Your task to perform on an android device: snooze an email in the gmail app Image 0: 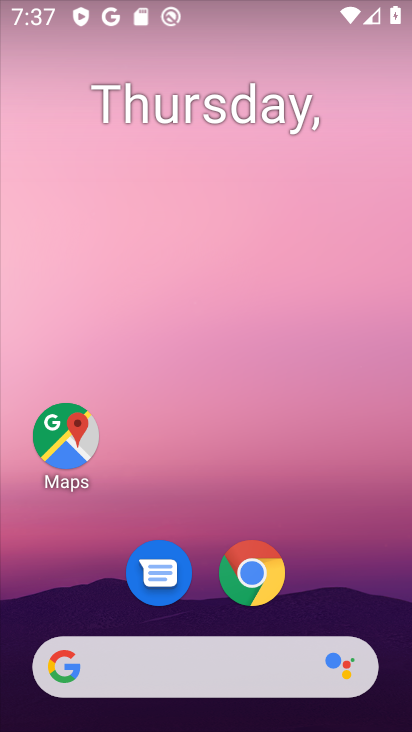
Step 0: drag from (350, 599) to (332, 224)
Your task to perform on an android device: snooze an email in the gmail app Image 1: 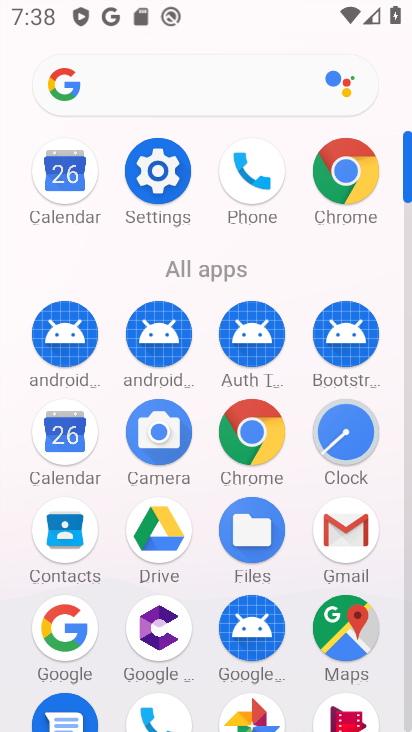
Step 1: click (332, 525)
Your task to perform on an android device: snooze an email in the gmail app Image 2: 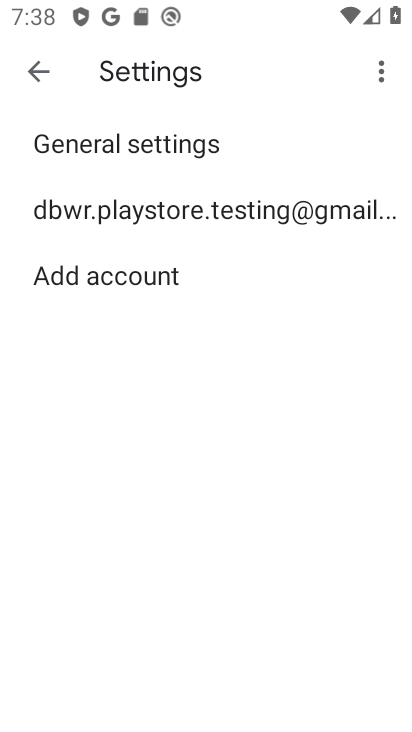
Step 2: click (262, 211)
Your task to perform on an android device: snooze an email in the gmail app Image 3: 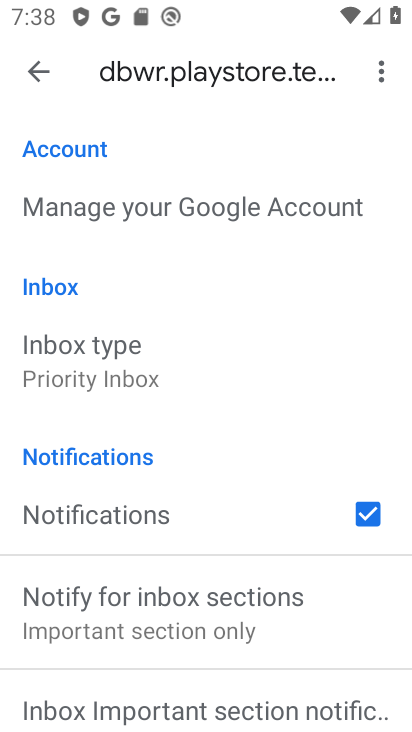
Step 3: click (39, 71)
Your task to perform on an android device: snooze an email in the gmail app Image 4: 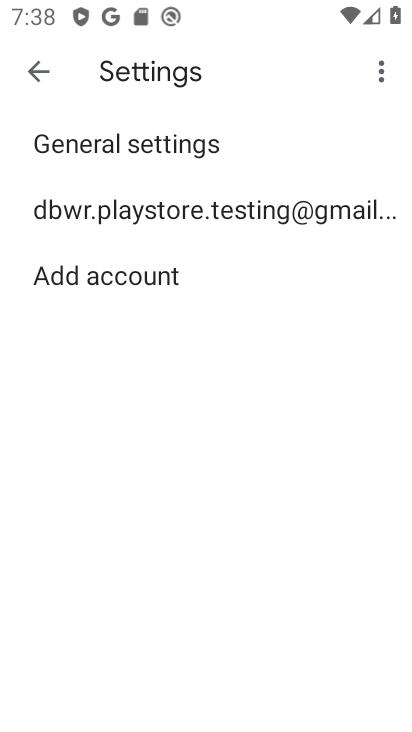
Step 4: click (56, 78)
Your task to perform on an android device: snooze an email in the gmail app Image 5: 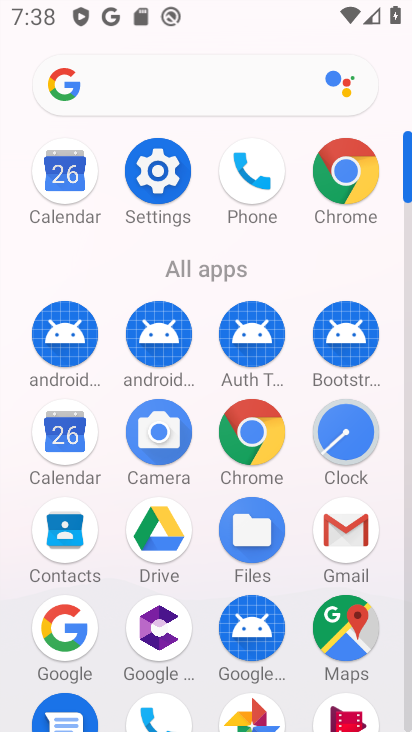
Step 5: click (346, 555)
Your task to perform on an android device: snooze an email in the gmail app Image 6: 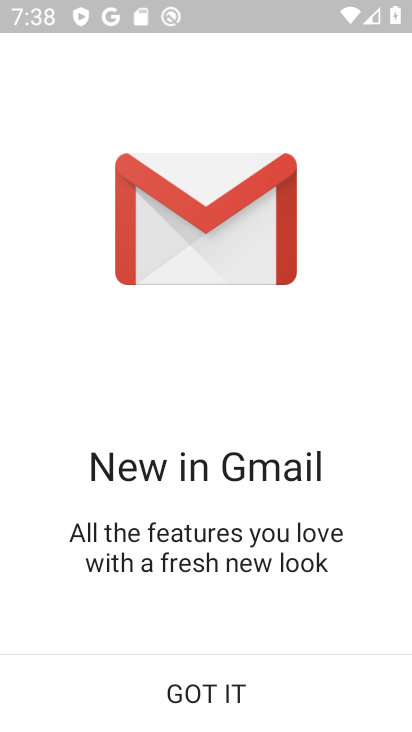
Step 6: click (222, 693)
Your task to perform on an android device: snooze an email in the gmail app Image 7: 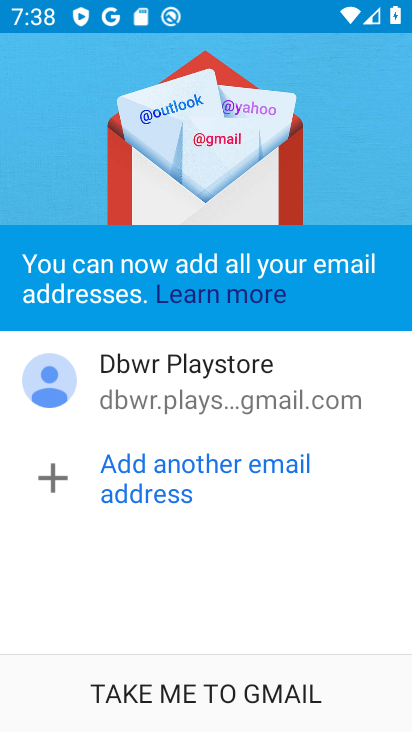
Step 7: click (258, 708)
Your task to perform on an android device: snooze an email in the gmail app Image 8: 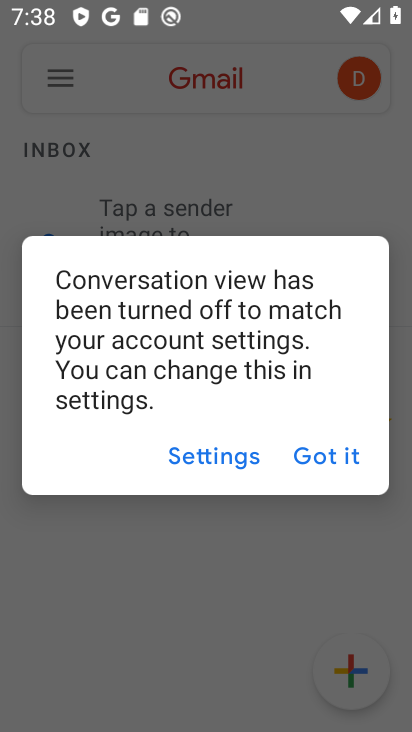
Step 8: click (348, 459)
Your task to perform on an android device: snooze an email in the gmail app Image 9: 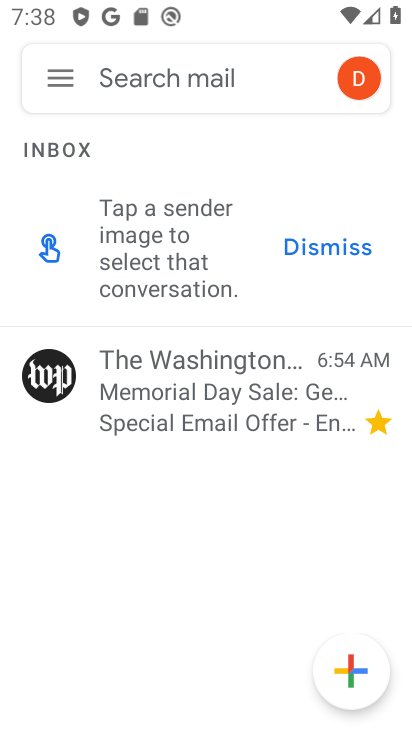
Step 9: click (220, 370)
Your task to perform on an android device: snooze an email in the gmail app Image 10: 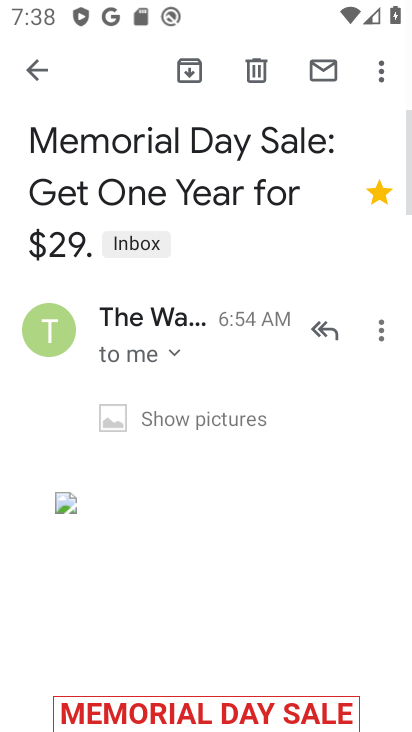
Step 10: click (384, 83)
Your task to perform on an android device: snooze an email in the gmail app Image 11: 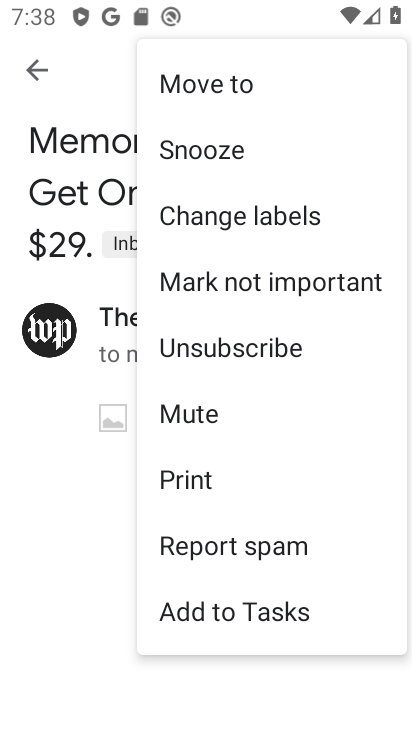
Step 11: click (249, 149)
Your task to perform on an android device: snooze an email in the gmail app Image 12: 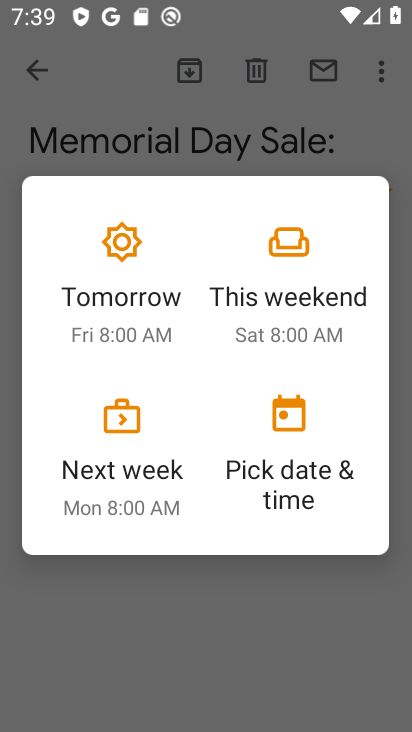
Step 12: click (115, 271)
Your task to perform on an android device: snooze an email in the gmail app Image 13: 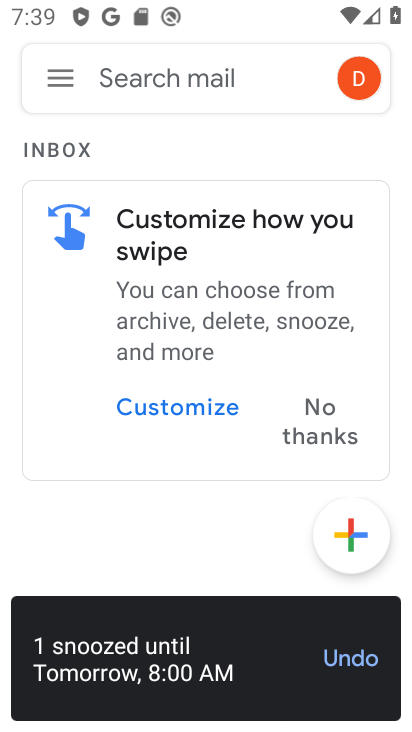
Step 13: task complete